Your task to perform on an android device: turn off location history Image 0: 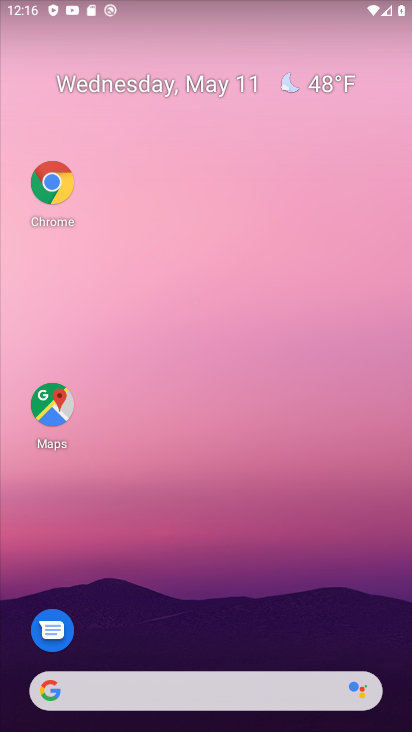
Step 0: drag from (230, 662) to (204, 1)
Your task to perform on an android device: turn off location history Image 1: 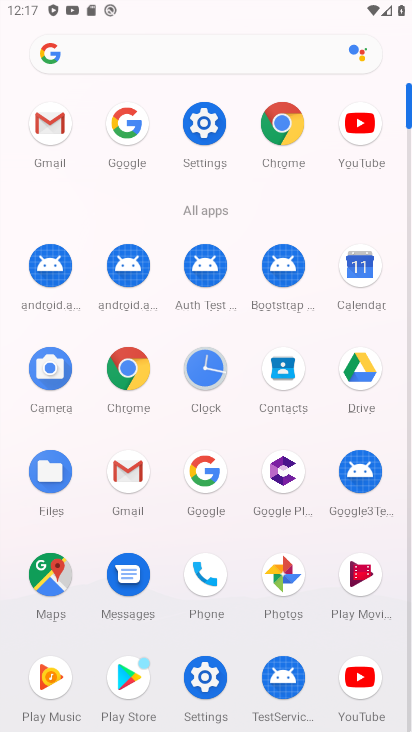
Step 1: click (206, 118)
Your task to perform on an android device: turn off location history Image 2: 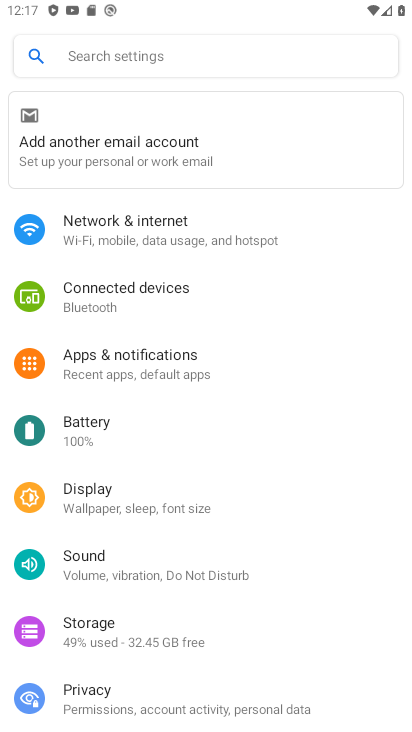
Step 2: drag from (132, 647) to (99, 302)
Your task to perform on an android device: turn off location history Image 3: 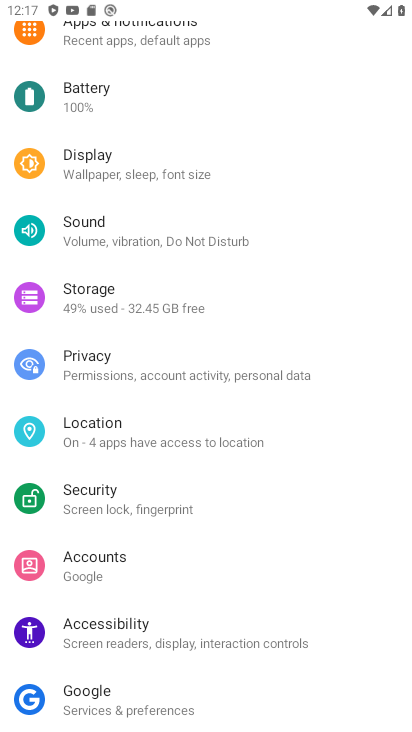
Step 3: click (90, 441)
Your task to perform on an android device: turn off location history Image 4: 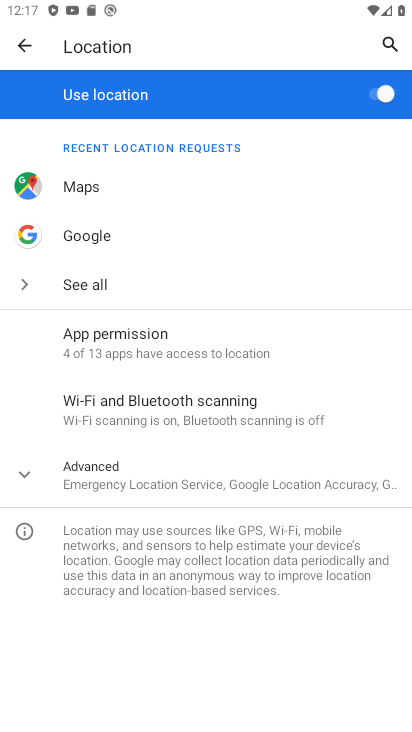
Step 4: click (138, 476)
Your task to perform on an android device: turn off location history Image 5: 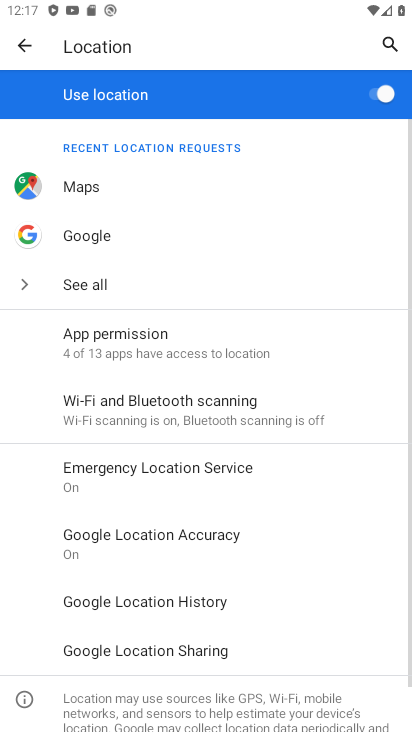
Step 5: click (193, 608)
Your task to perform on an android device: turn off location history Image 6: 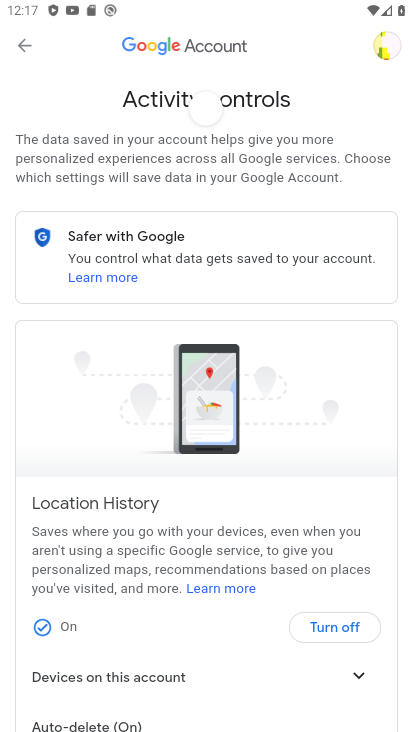
Step 6: click (328, 622)
Your task to perform on an android device: turn off location history Image 7: 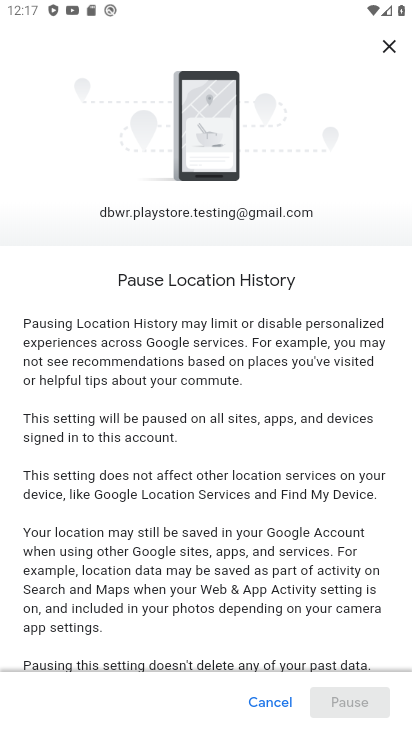
Step 7: drag from (311, 571) to (270, 55)
Your task to perform on an android device: turn off location history Image 8: 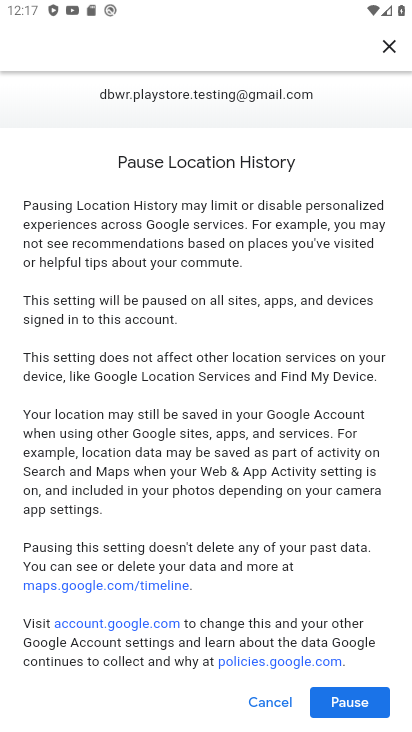
Step 8: click (359, 711)
Your task to perform on an android device: turn off location history Image 9: 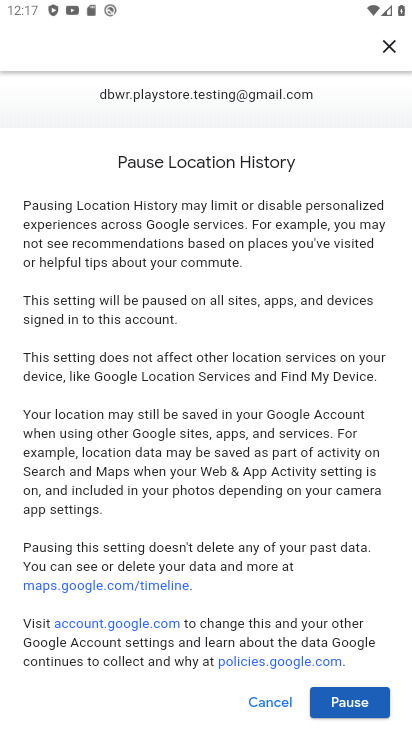
Step 9: click (352, 708)
Your task to perform on an android device: turn off location history Image 10: 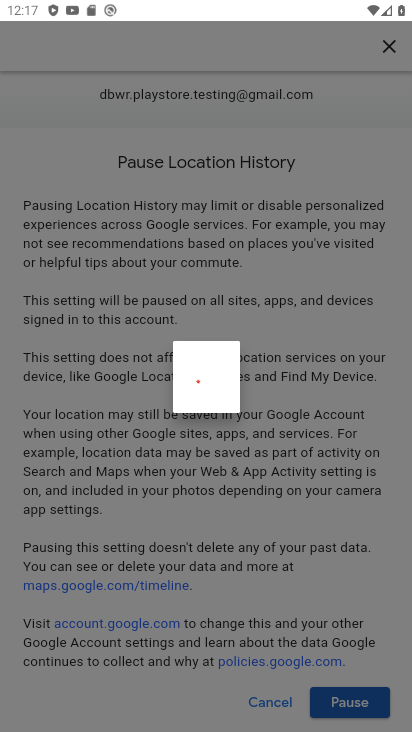
Step 10: drag from (249, 538) to (249, 217)
Your task to perform on an android device: turn off location history Image 11: 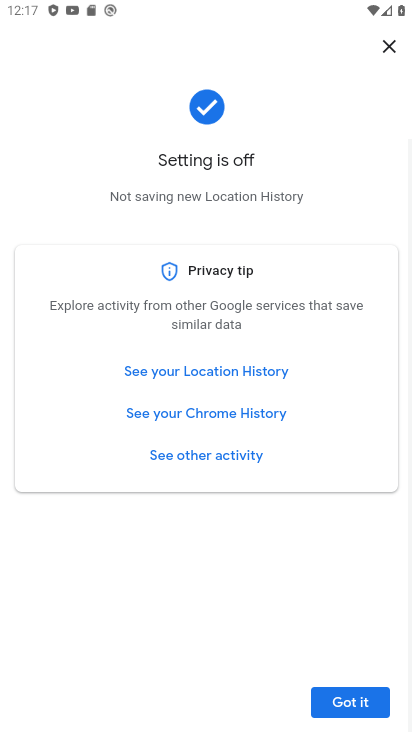
Step 11: click (366, 701)
Your task to perform on an android device: turn off location history Image 12: 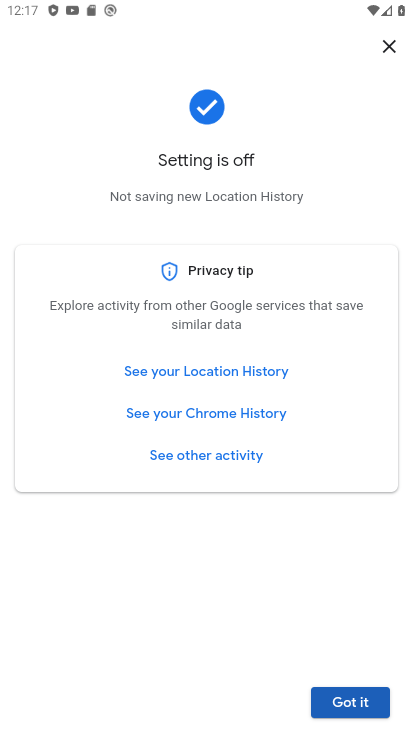
Step 12: task complete